Your task to perform on an android device: turn notification dots off Image 0: 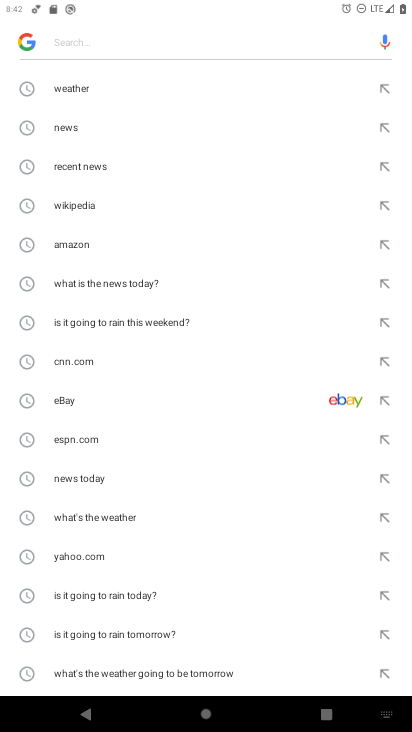
Step 0: press home button
Your task to perform on an android device: turn notification dots off Image 1: 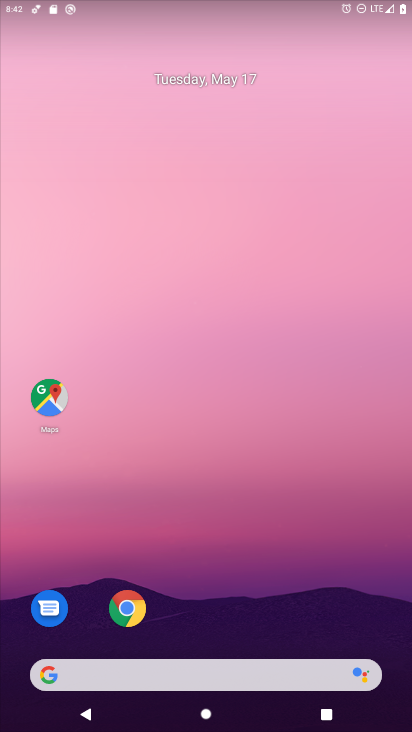
Step 1: drag from (226, 594) to (278, 71)
Your task to perform on an android device: turn notification dots off Image 2: 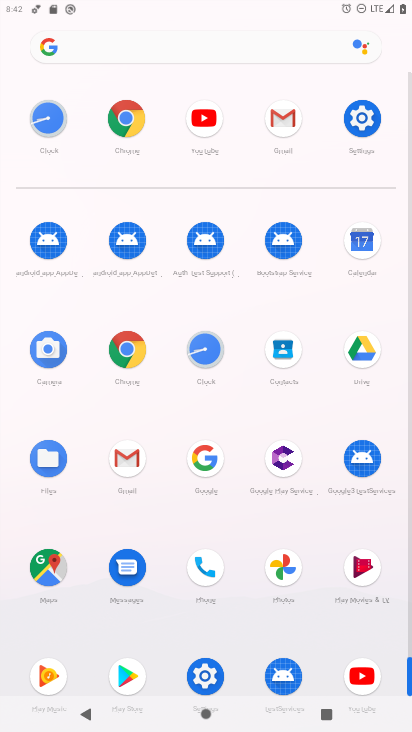
Step 2: click (364, 127)
Your task to perform on an android device: turn notification dots off Image 3: 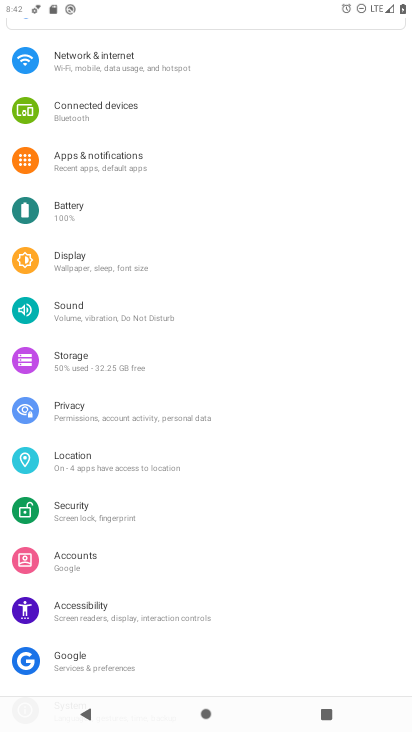
Step 3: click (115, 166)
Your task to perform on an android device: turn notification dots off Image 4: 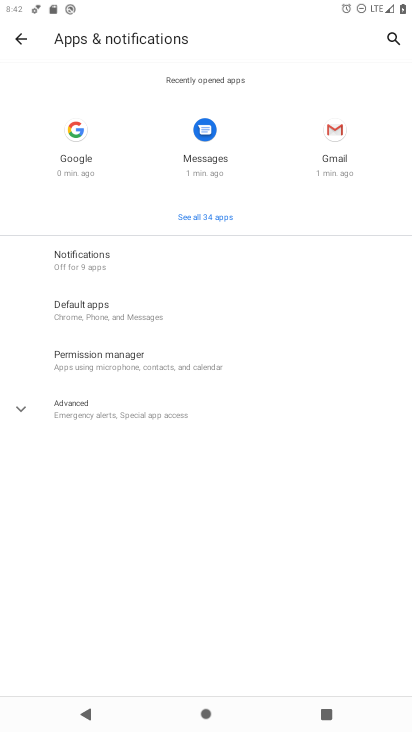
Step 4: click (96, 256)
Your task to perform on an android device: turn notification dots off Image 5: 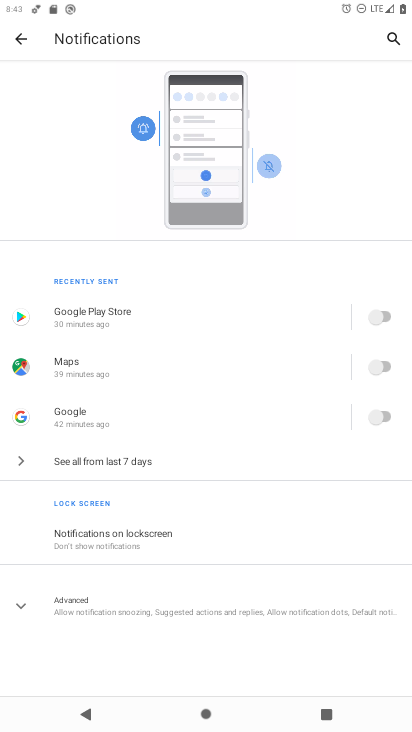
Step 5: click (113, 606)
Your task to perform on an android device: turn notification dots off Image 6: 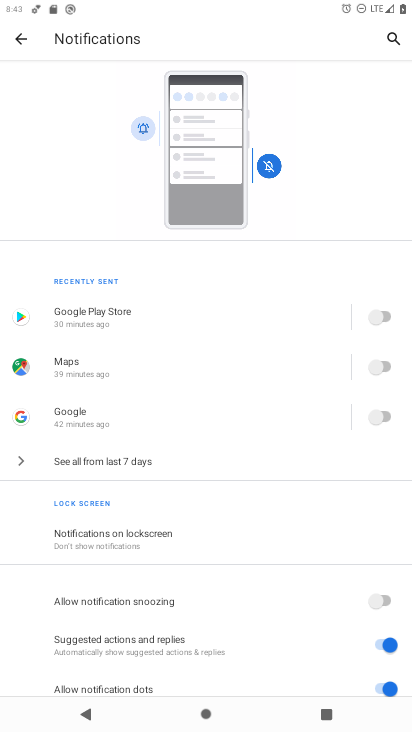
Step 6: drag from (165, 580) to (224, 353)
Your task to perform on an android device: turn notification dots off Image 7: 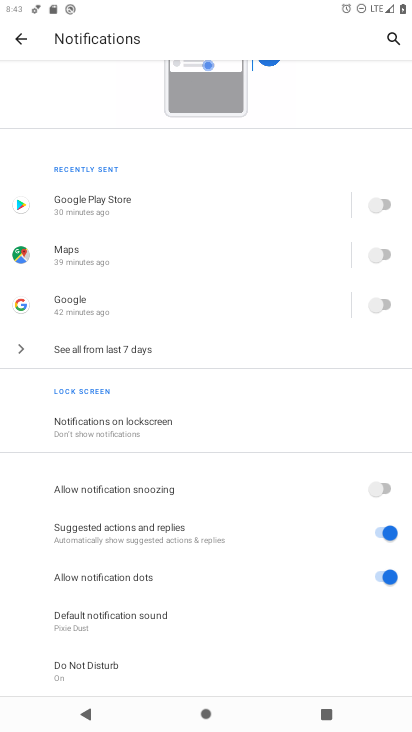
Step 7: click (376, 576)
Your task to perform on an android device: turn notification dots off Image 8: 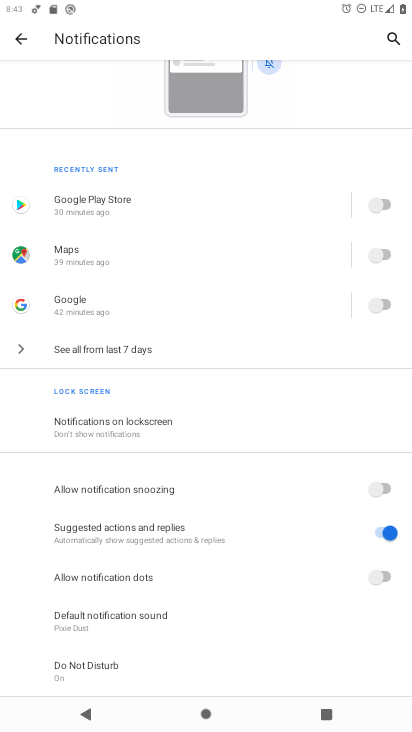
Step 8: task complete